Your task to perform on an android device: toggle show notifications on the lock screen Image 0: 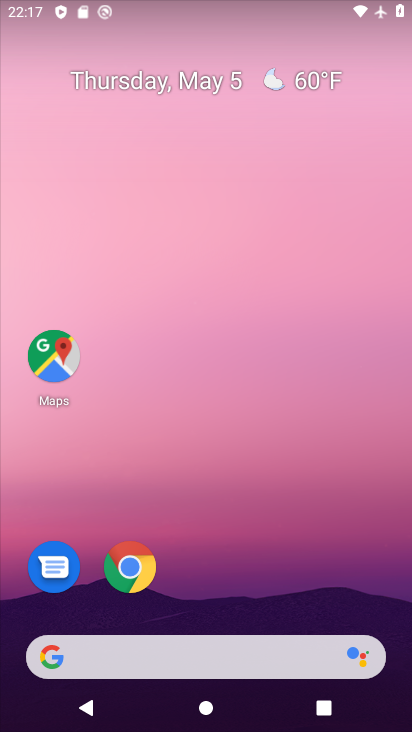
Step 0: drag from (211, 562) to (211, 255)
Your task to perform on an android device: toggle show notifications on the lock screen Image 1: 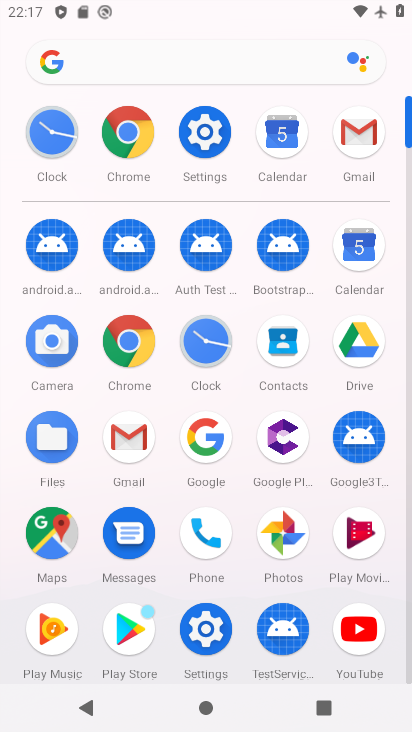
Step 1: click (212, 145)
Your task to perform on an android device: toggle show notifications on the lock screen Image 2: 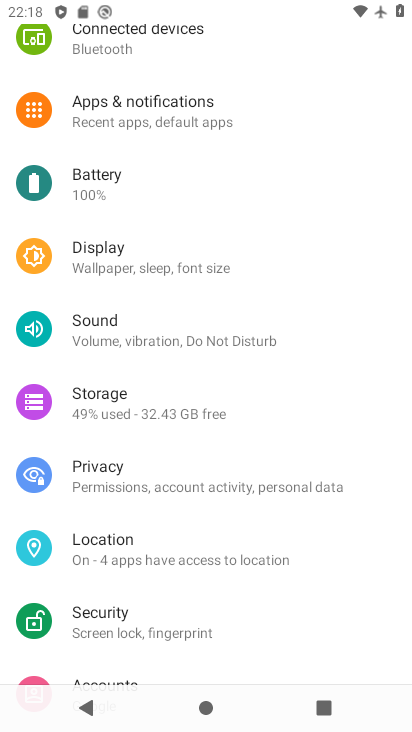
Step 2: click (185, 126)
Your task to perform on an android device: toggle show notifications on the lock screen Image 3: 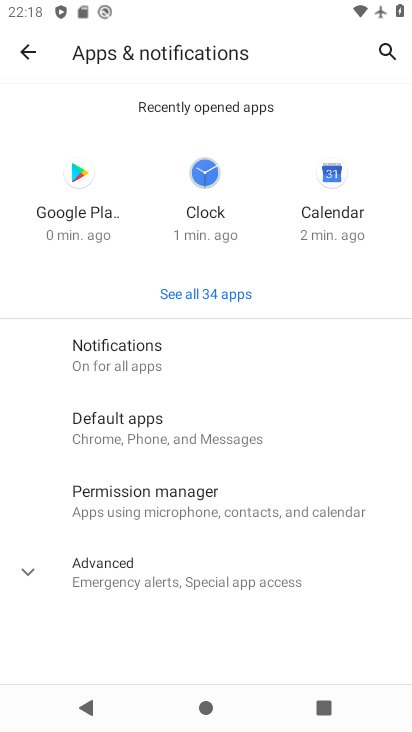
Step 3: click (207, 359)
Your task to perform on an android device: toggle show notifications on the lock screen Image 4: 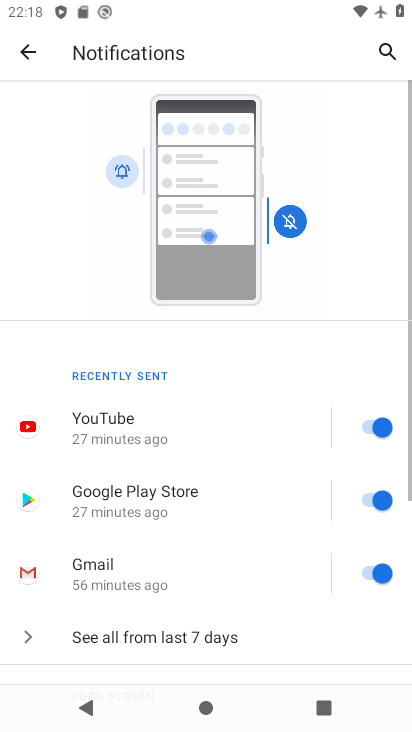
Step 4: drag from (250, 601) to (250, 192)
Your task to perform on an android device: toggle show notifications on the lock screen Image 5: 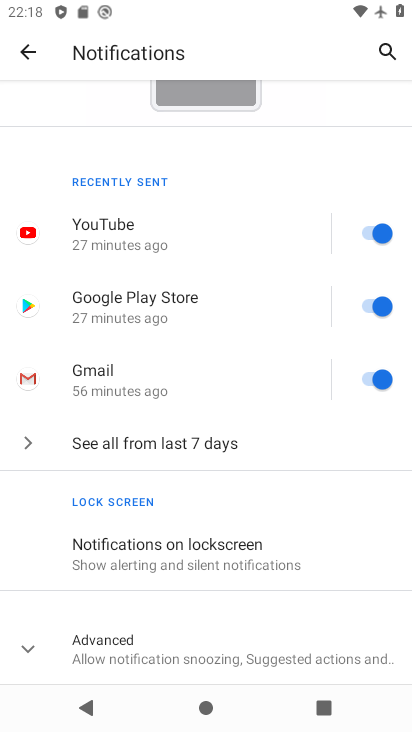
Step 5: click (204, 565)
Your task to perform on an android device: toggle show notifications on the lock screen Image 6: 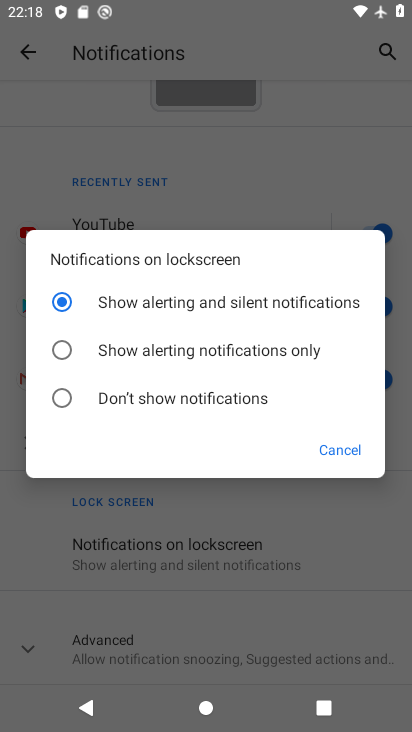
Step 6: click (178, 390)
Your task to perform on an android device: toggle show notifications on the lock screen Image 7: 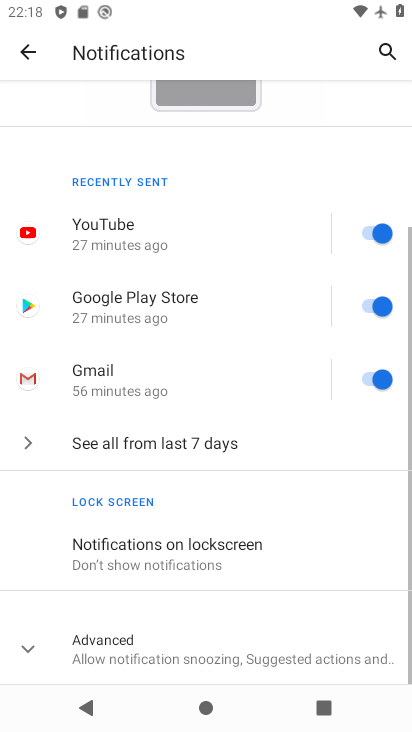
Step 7: task complete